Your task to perform on an android device: Find coffee shops on Maps Image 0: 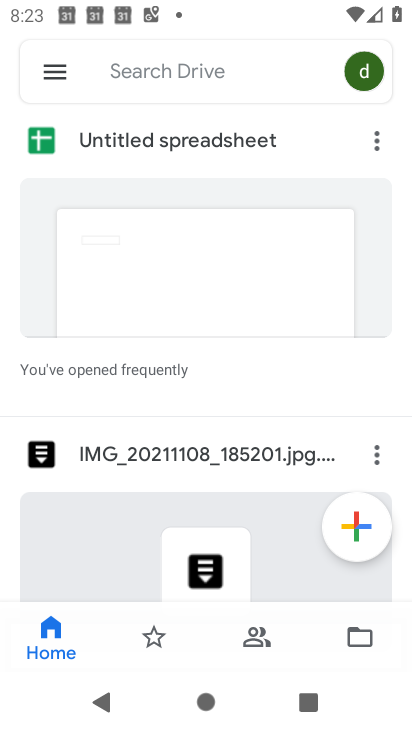
Step 0: press home button
Your task to perform on an android device: Find coffee shops on Maps Image 1: 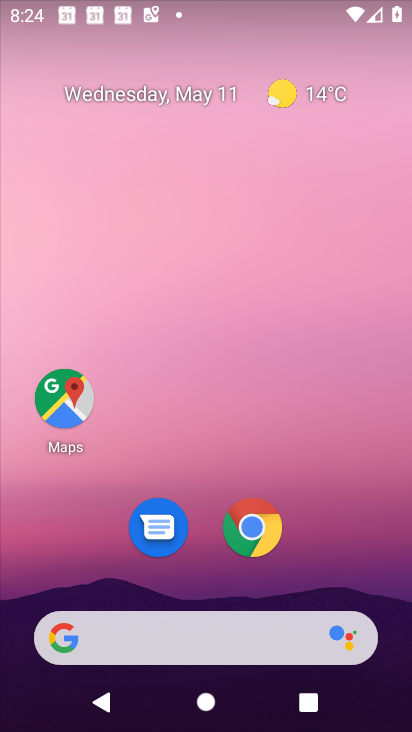
Step 1: click (71, 414)
Your task to perform on an android device: Find coffee shops on Maps Image 2: 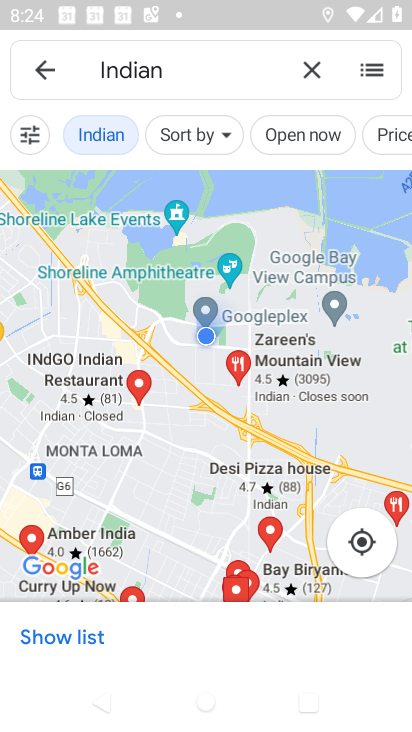
Step 2: click (308, 68)
Your task to perform on an android device: Find coffee shops on Maps Image 3: 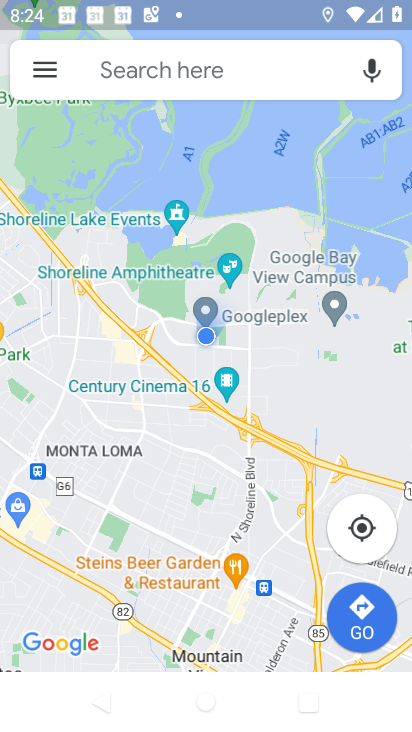
Step 3: click (277, 74)
Your task to perform on an android device: Find coffee shops on Maps Image 4: 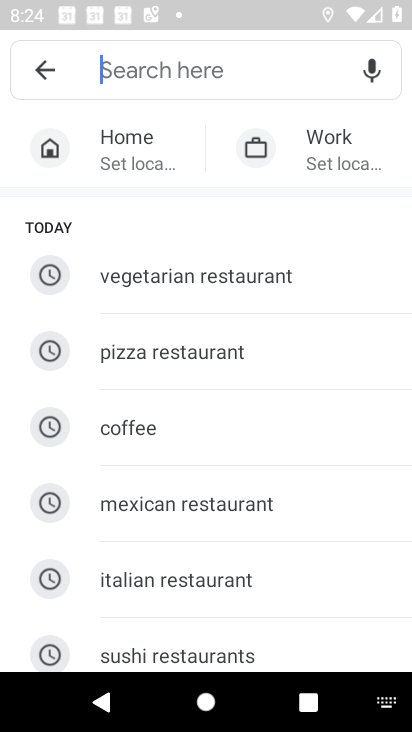
Step 4: click (217, 414)
Your task to perform on an android device: Find coffee shops on Maps Image 5: 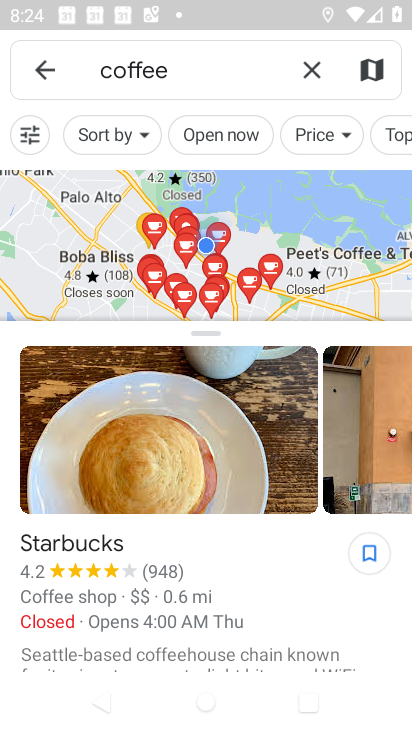
Step 5: task complete